Your task to perform on an android device: turn on translation in the chrome app Image 0: 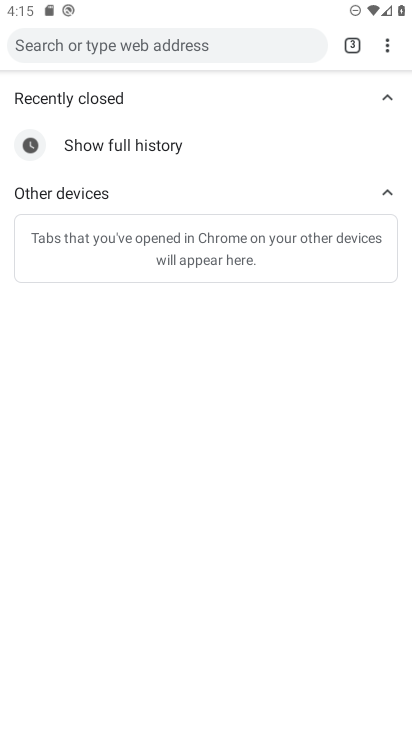
Step 0: click (389, 45)
Your task to perform on an android device: turn on translation in the chrome app Image 1: 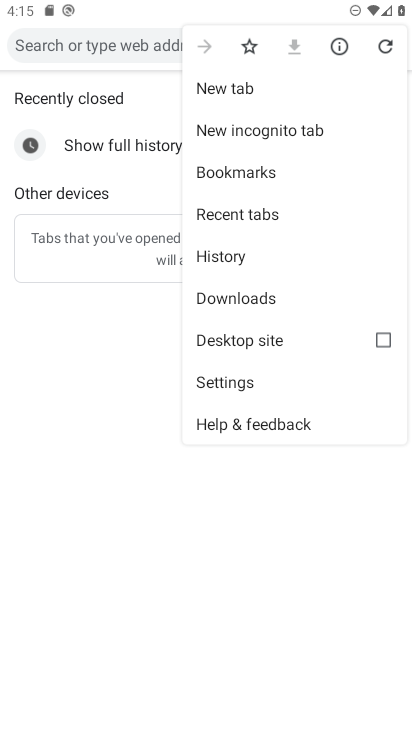
Step 1: click (241, 386)
Your task to perform on an android device: turn on translation in the chrome app Image 2: 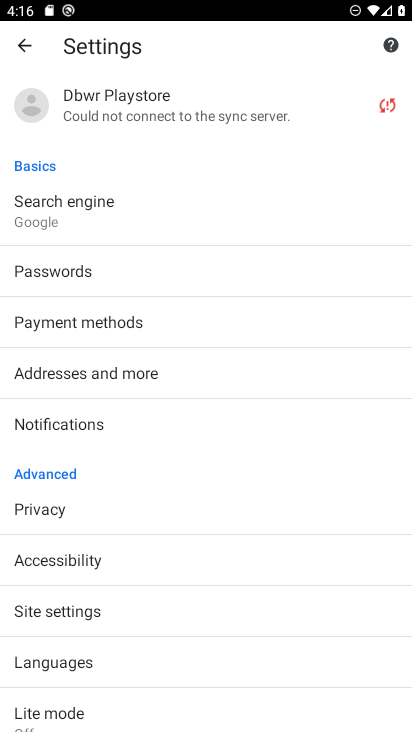
Step 2: click (66, 660)
Your task to perform on an android device: turn on translation in the chrome app Image 3: 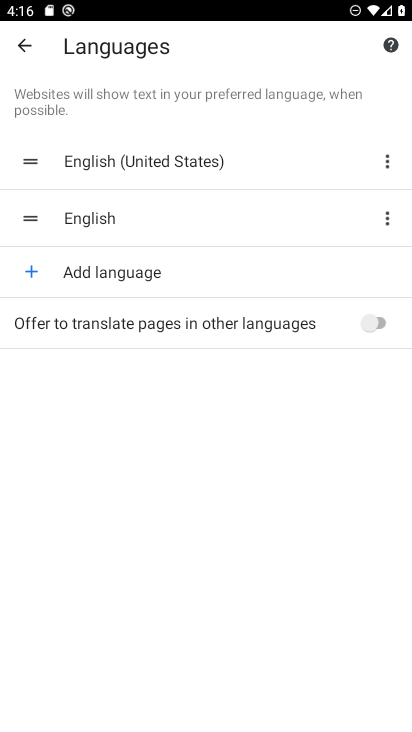
Step 3: click (374, 324)
Your task to perform on an android device: turn on translation in the chrome app Image 4: 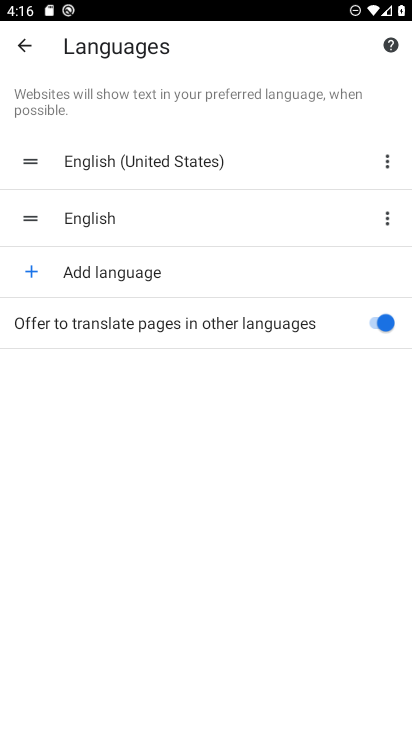
Step 4: task complete